Your task to perform on an android device: choose inbox layout in the gmail app Image 0: 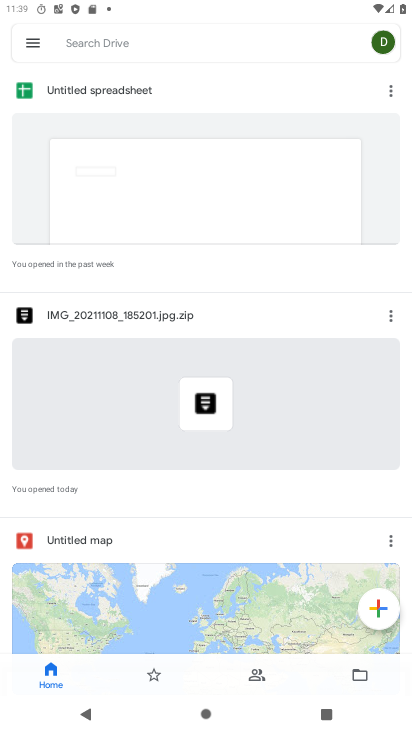
Step 0: press home button
Your task to perform on an android device: choose inbox layout in the gmail app Image 1: 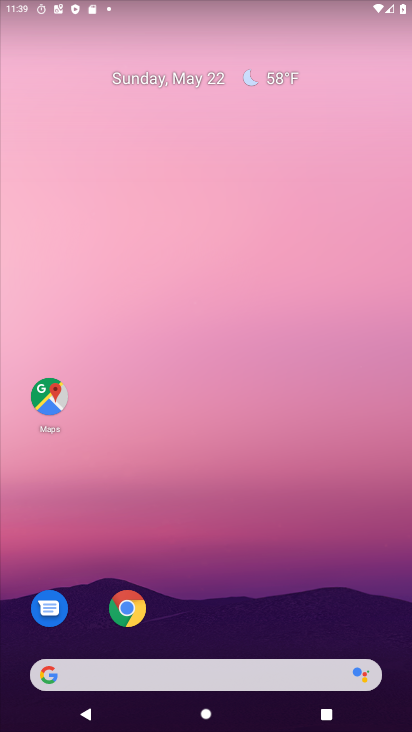
Step 1: drag from (224, 628) to (265, 228)
Your task to perform on an android device: choose inbox layout in the gmail app Image 2: 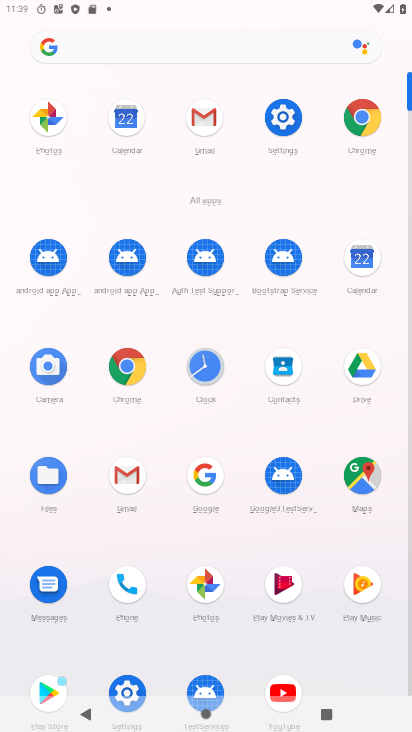
Step 2: click (203, 125)
Your task to perform on an android device: choose inbox layout in the gmail app Image 3: 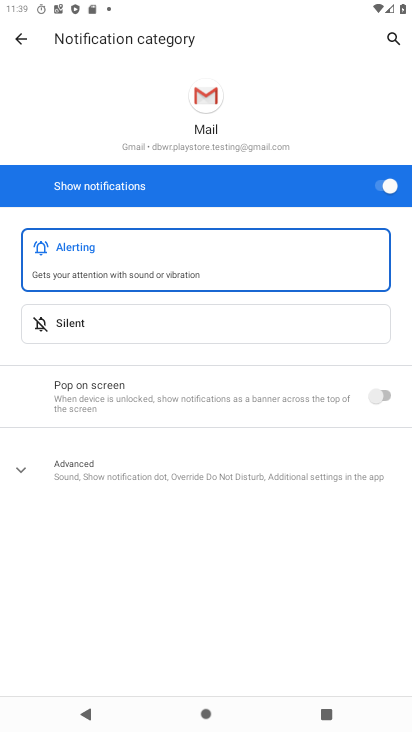
Step 3: click (21, 40)
Your task to perform on an android device: choose inbox layout in the gmail app Image 4: 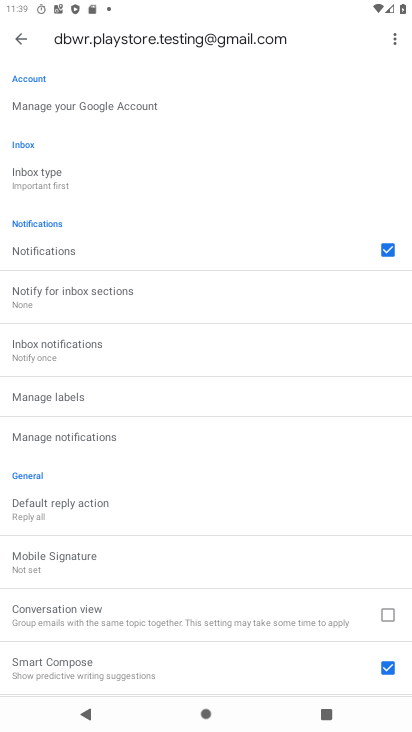
Step 4: click (73, 175)
Your task to perform on an android device: choose inbox layout in the gmail app Image 5: 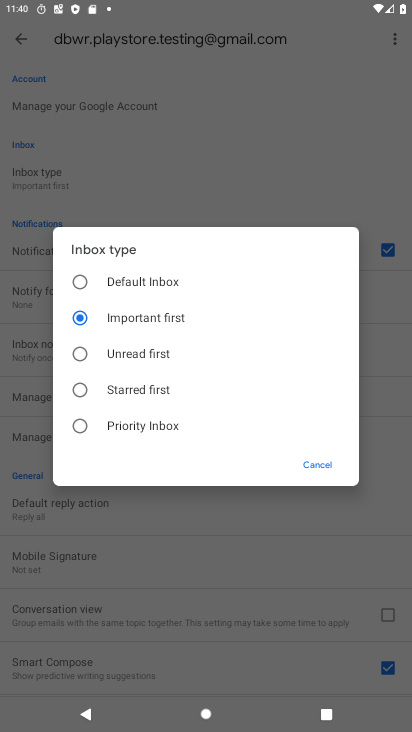
Step 5: click (112, 357)
Your task to perform on an android device: choose inbox layout in the gmail app Image 6: 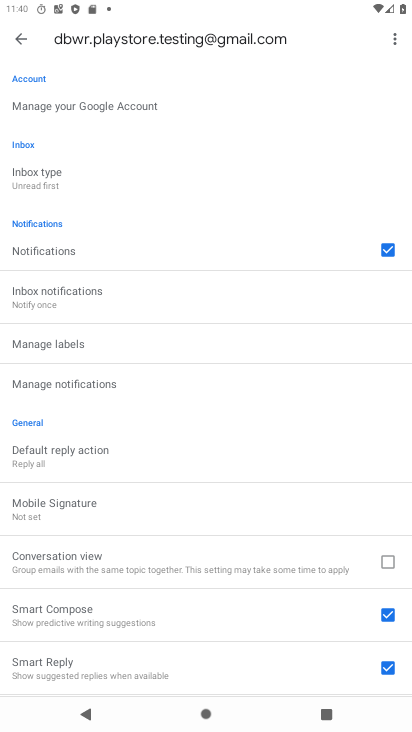
Step 6: task complete